Your task to perform on an android device: Go to location settings Image 0: 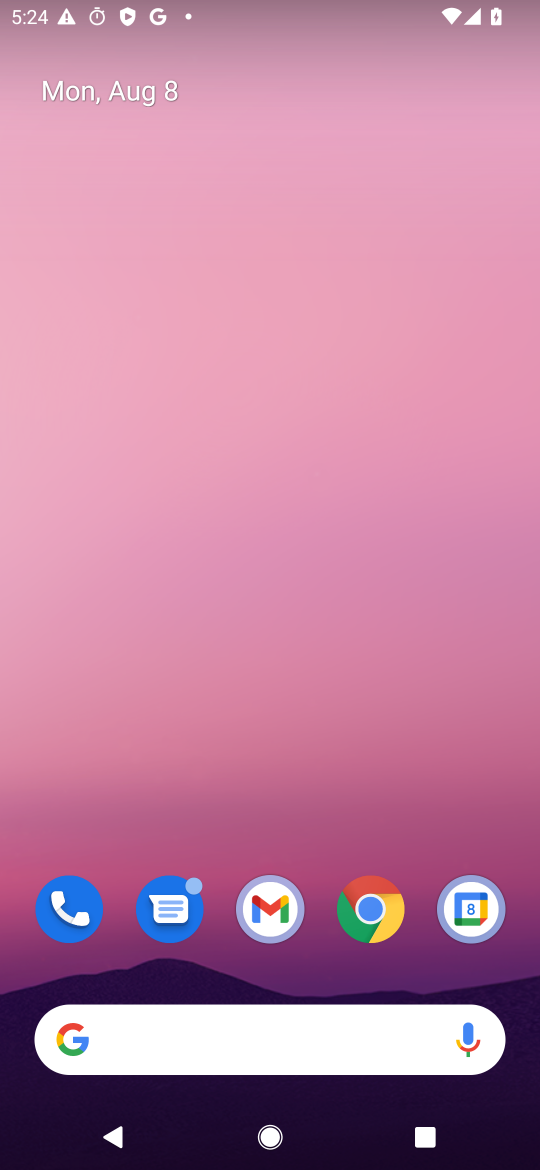
Step 0: drag from (223, 1040) to (348, 150)
Your task to perform on an android device: Go to location settings Image 1: 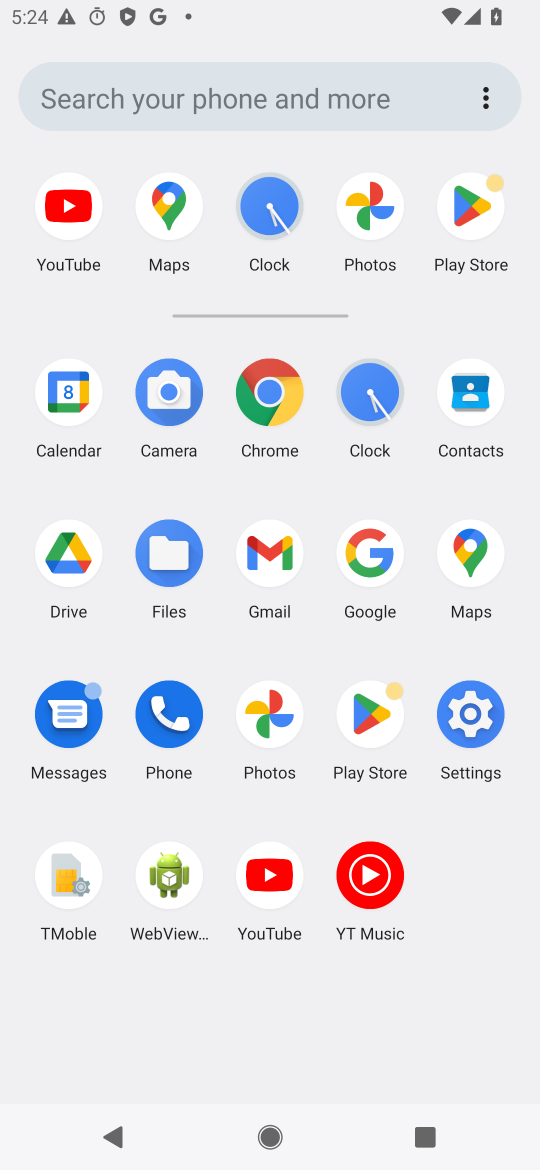
Step 1: click (472, 717)
Your task to perform on an android device: Go to location settings Image 2: 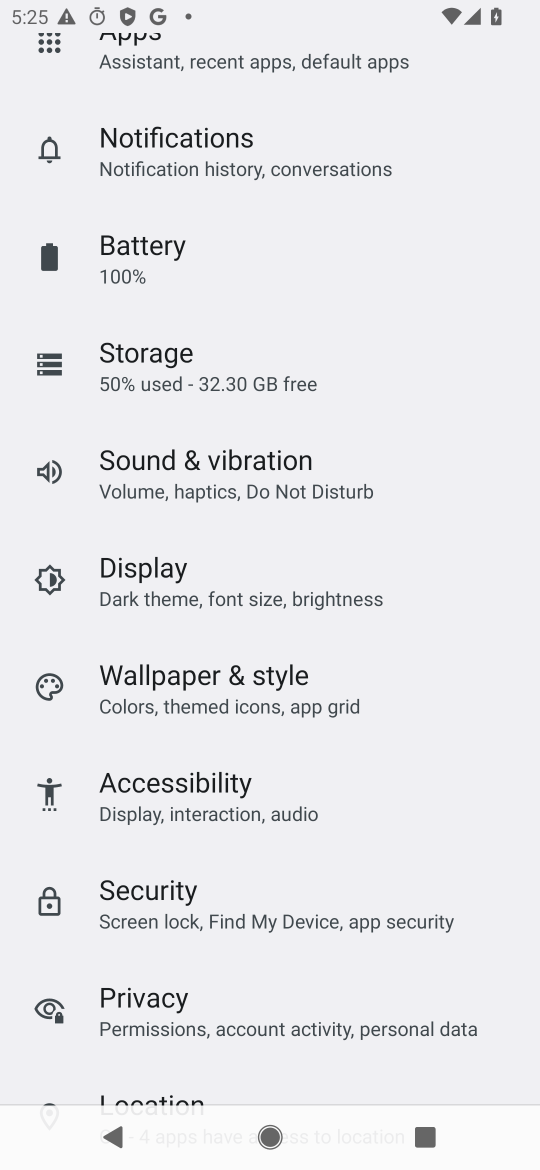
Step 2: drag from (248, 1000) to (436, 491)
Your task to perform on an android device: Go to location settings Image 3: 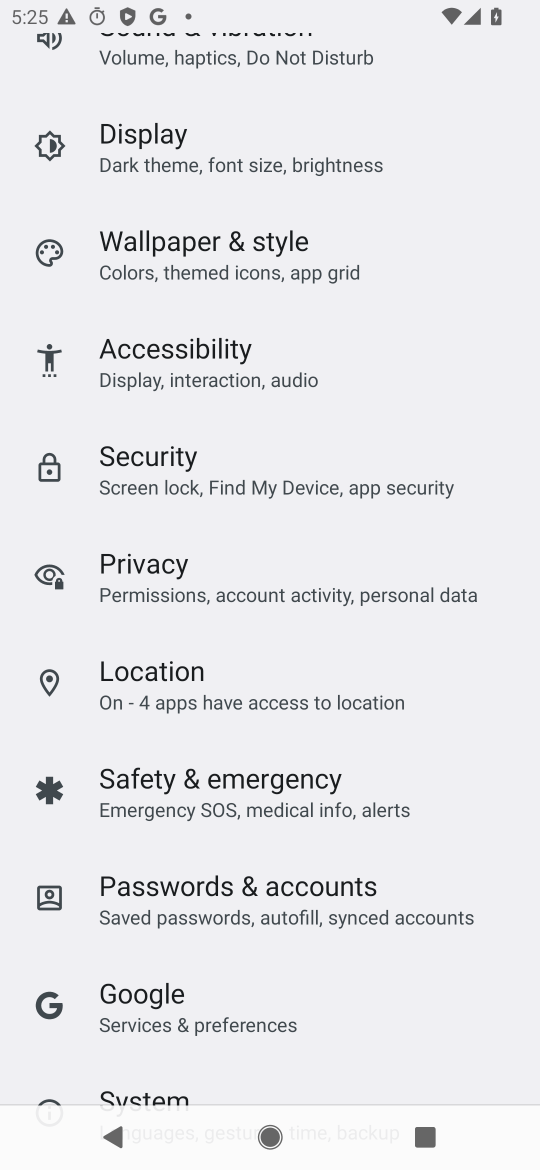
Step 3: click (155, 678)
Your task to perform on an android device: Go to location settings Image 4: 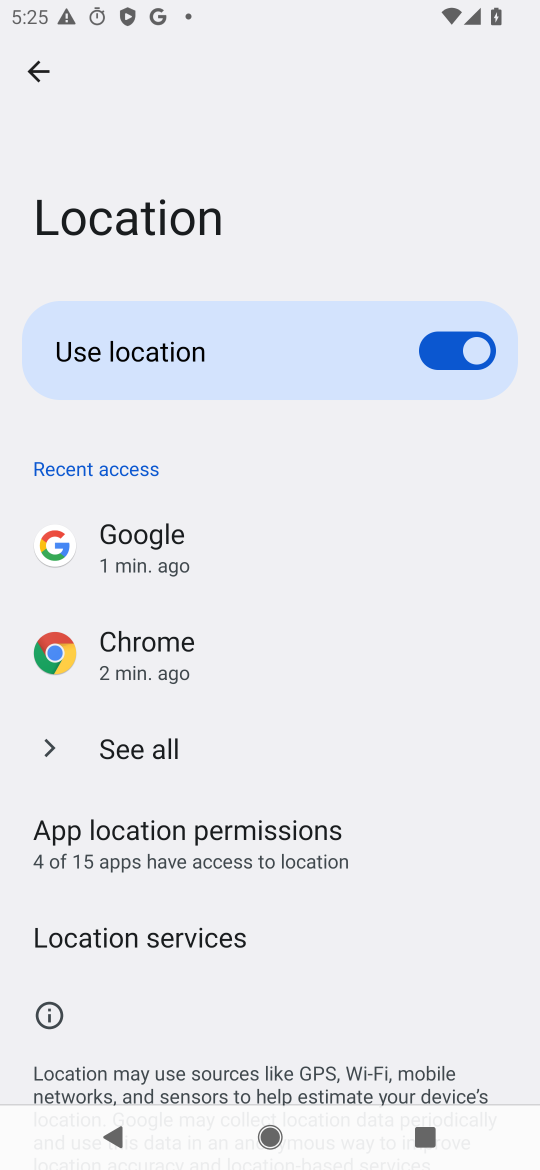
Step 4: task complete